Your task to perform on an android device: Go to calendar. Show me events next week Image 0: 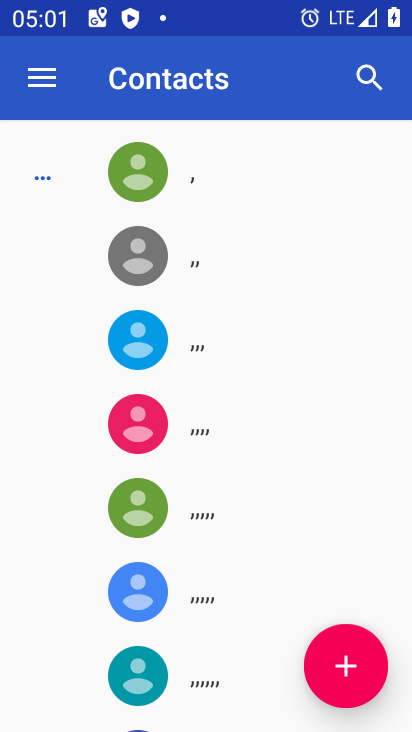
Step 0: press home button
Your task to perform on an android device: Go to calendar. Show me events next week Image 1: 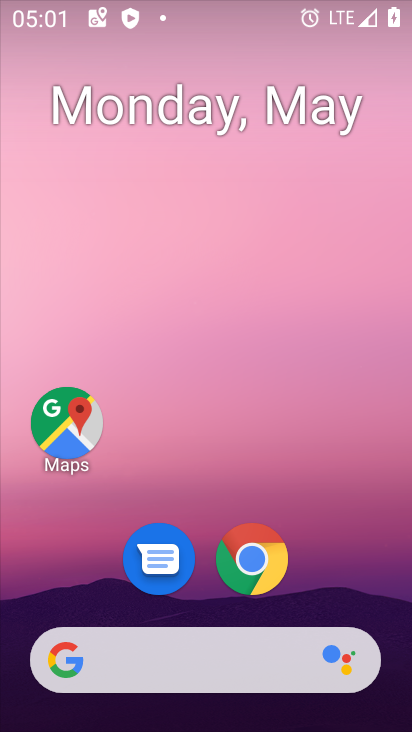
Step 1: drag from (350, 706) to (364, 85)
Your task to perform on an android device: Go to calendar. Show me events next week Image 2: 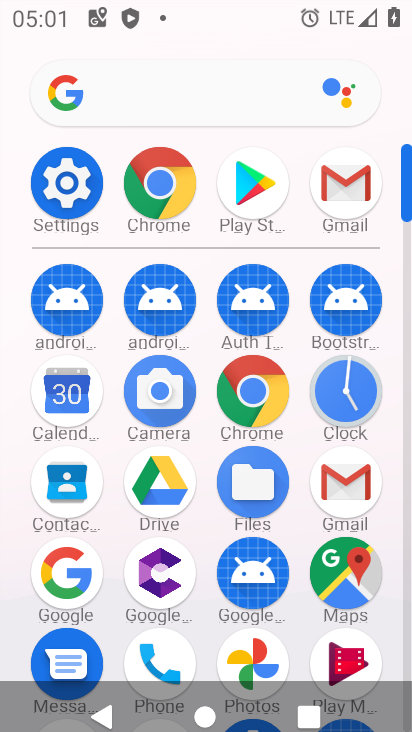
Step 2: click (61, 391)
Your task to perform on an android device: Go to calendar. Show me events next week Image 3: 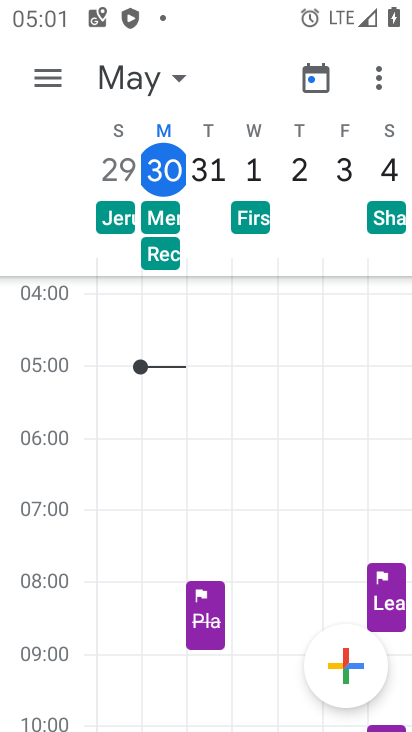
Step 3: click (184, 81)
Your task to perform on an android device: Go to calendar. Show me events next week Image 4: 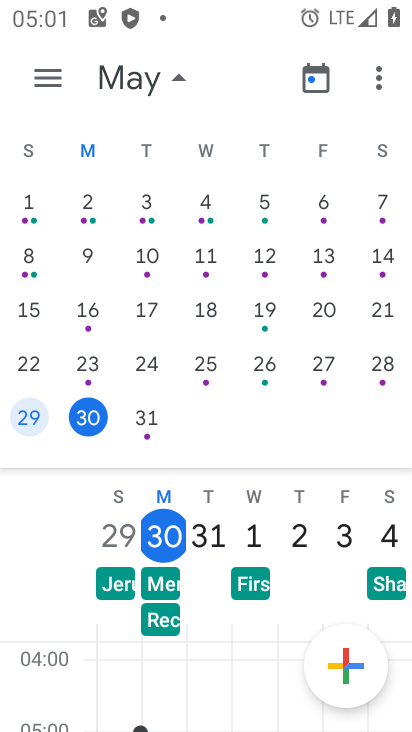
Step 4: drag from (334, 294) to (1, 346)
Your task to perform on an android device: Go to calendar. Show me events next week Image 5: 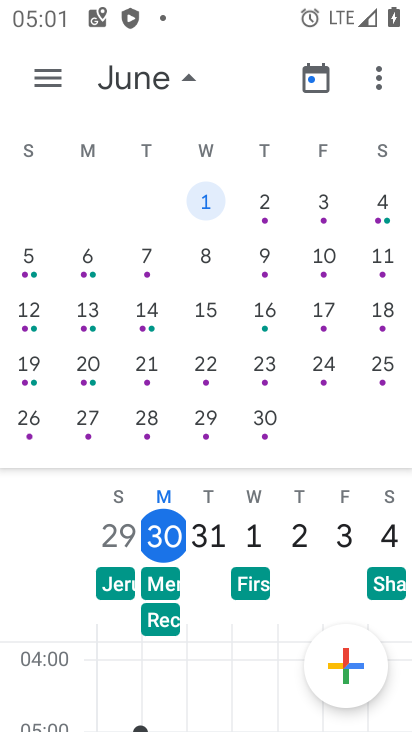
Step 5: drag from (265, 288) to (1, 364)
Your task to perform on an android device: Go to calendar. Show me events next week Image 6: 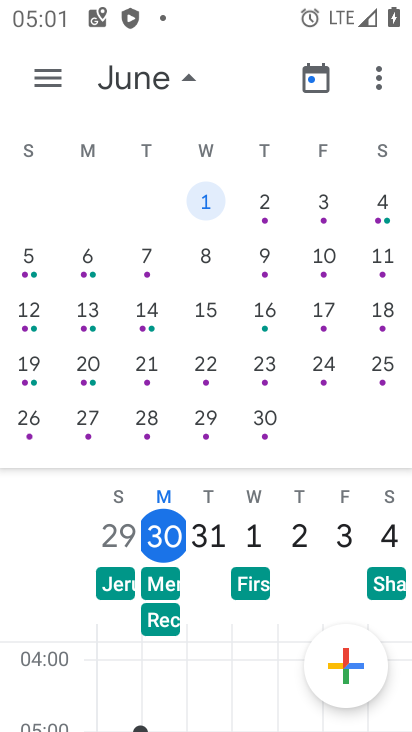
Step 6: click (318, 204)
Your task to perform on an android device: Go to calendar. Show me events next week Image 7: 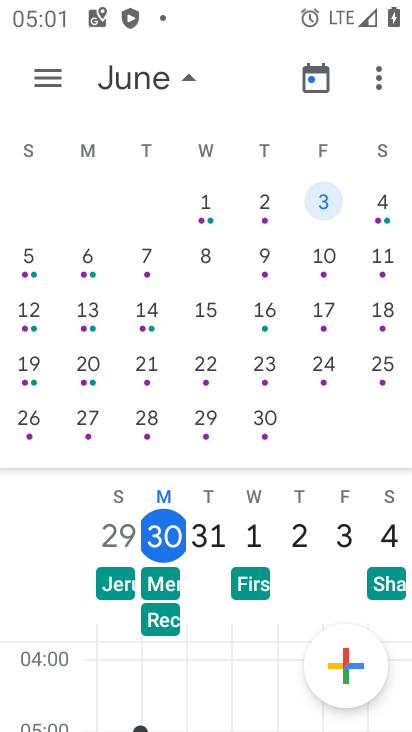
Step 7: click (54, 81)
Your task to perform on an android device: Go to calendar. Show me events next week Image 8: 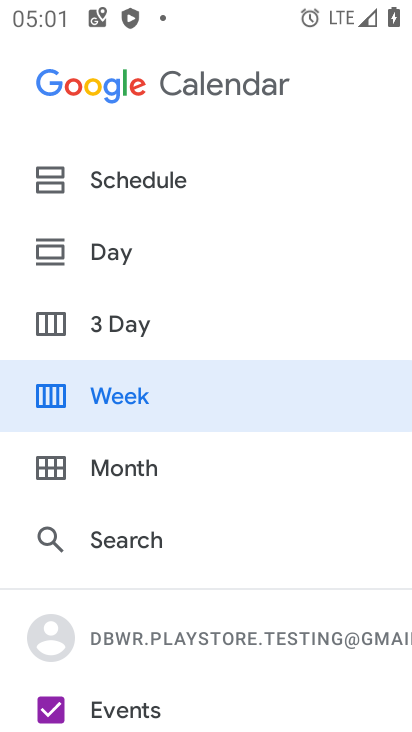
Step 8: click (154, 414)
Your task to perform on an android device: Go to calendar. Show me events next week Image 9: 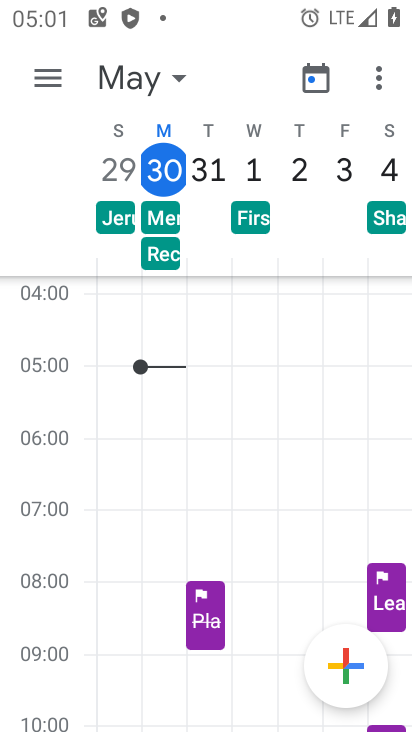
Step 9: task complete